Your task to perform on an android device: Go to Yahoo.com Image 0: 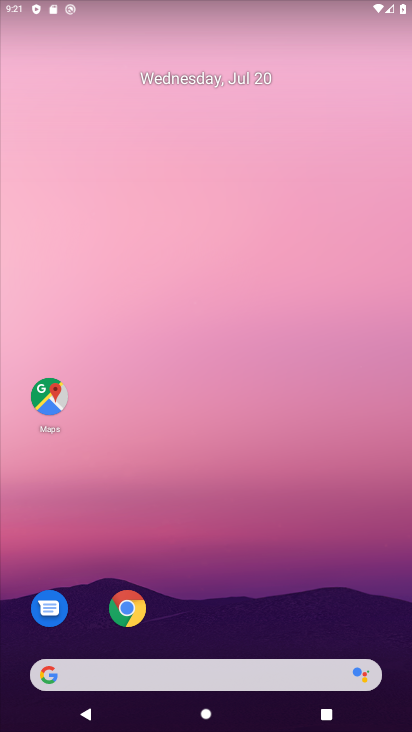
Step 0: drag from (268, 551) to (190, 9)
Your task to perform on an android device: Go to Yahoo.com Image 1: 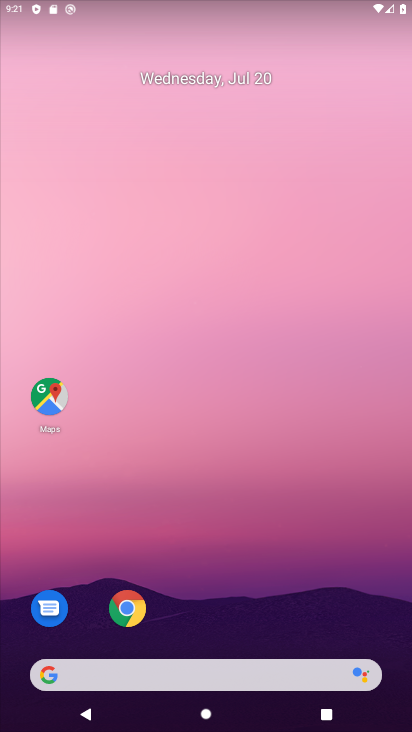
Step 1: drag from (245, 561) to (261, 100)
Your task to perform on an android device: Go to Yahoo.com Image 2: 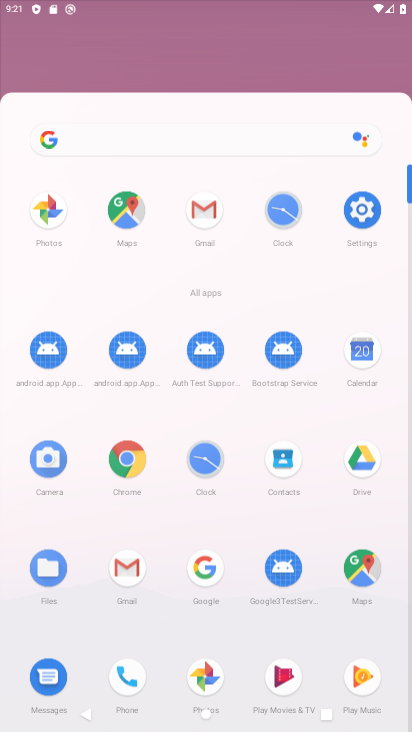
Step 2: drag from (277, 510) to (197, 218)
Your task to perform on an android device: Go to Yahoo.com Image 3: 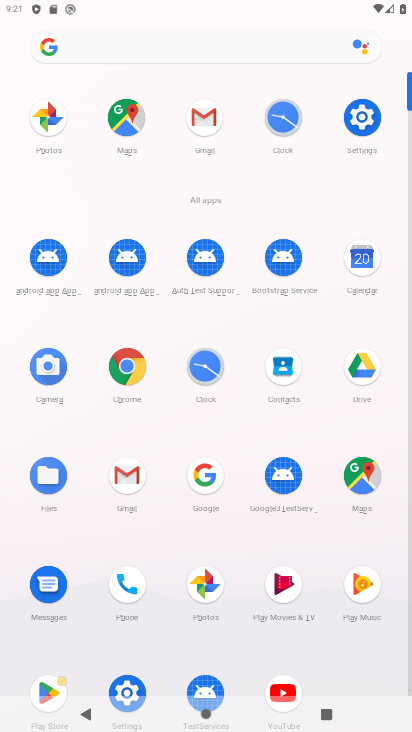
Step 3: click (127, 365)
Your task to perform on an android device: Go to Yahoo.com Image 4: 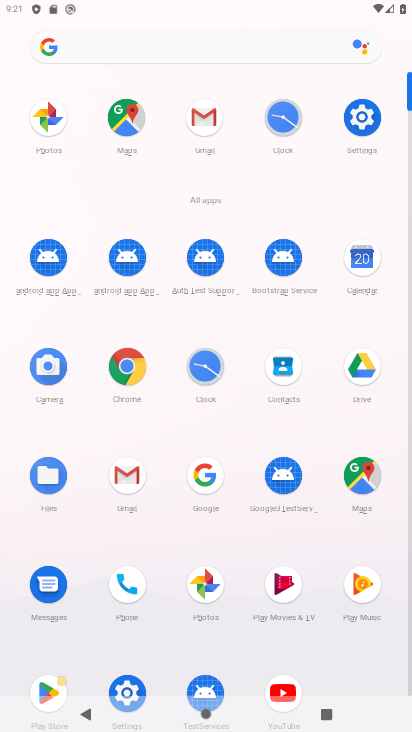
Step 4: click (128, 361)
Your task to perform on an android device: Go to Yahoo.com Image 5: 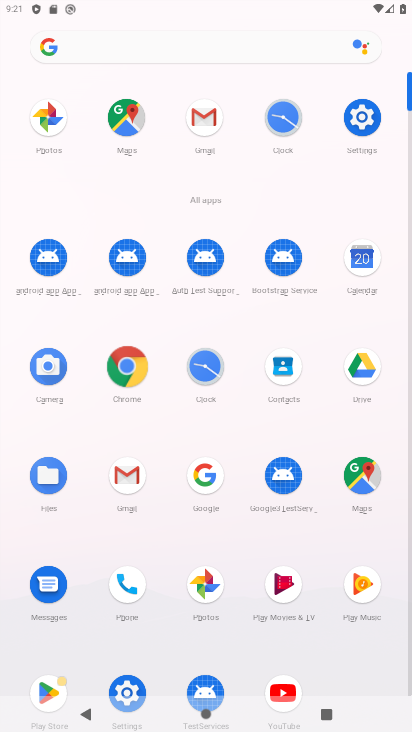
Step 5: click (127, 361)
Your task to perform on an android device: Go to Yahoo.com Image 6: 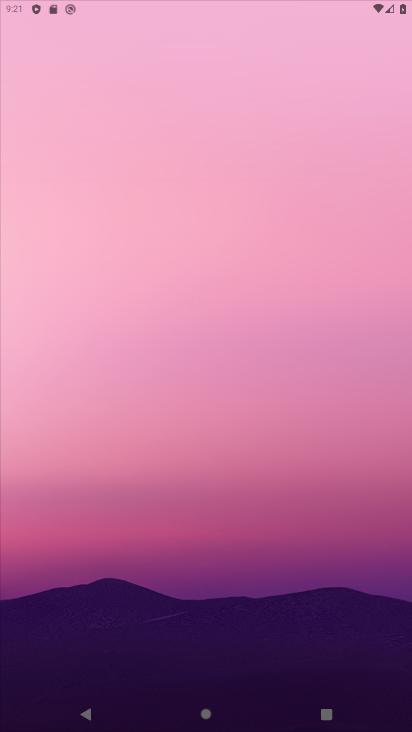
Step 6: click (128, 360)
Your task to perform on an android device: Go to Yahoo.com Image 7: 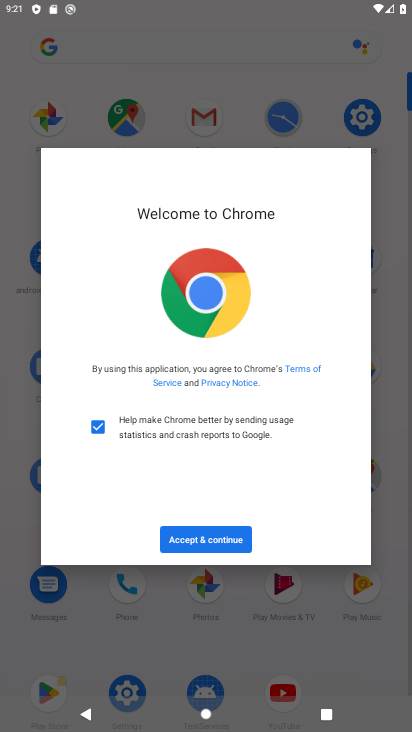
Step 7: click (217, 530)
Your task to perform on an android device: Go to Yahoo.com Image 8: 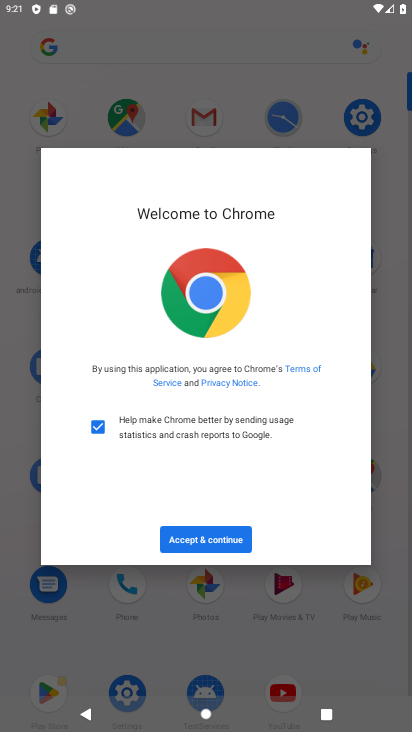
Step 8: click (216, 527)
Your task to perform on an android device: Go to Yahoo.com Image 9: 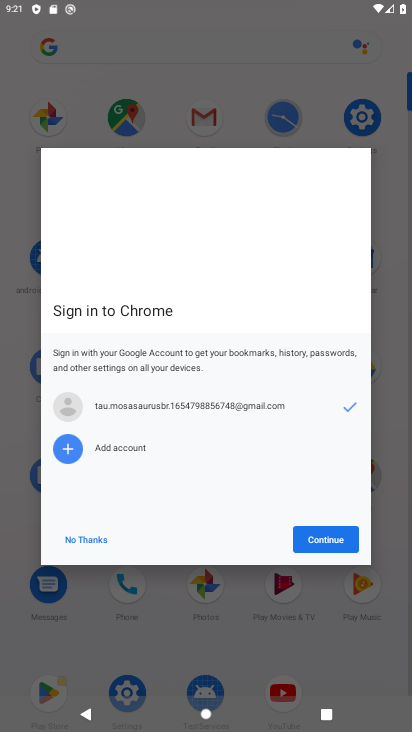
Step 9: click (216, 527)
Your task to perform on an android device: Go to Yahoo.com Image 10: 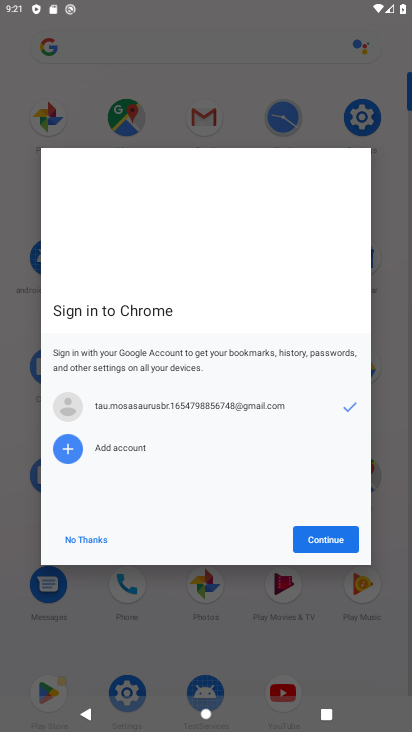
Step 10: click (216, 527)
Your task to perform on an android device: Go to Yahoo.com Image 11: 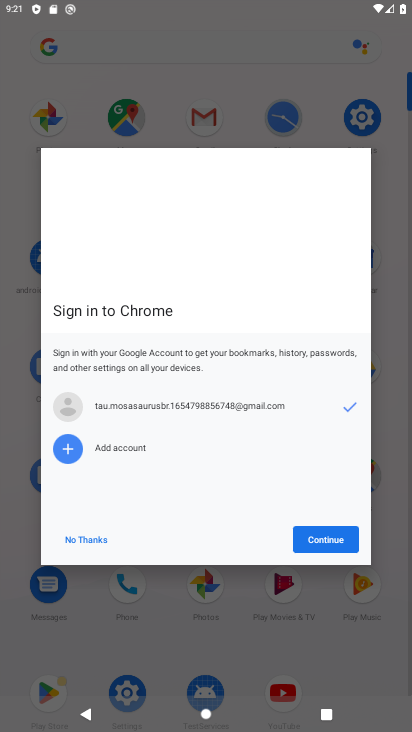
Step 11: click (217, 527)
Your task to perform on an android device: Go to Yahoo.com Image 12: 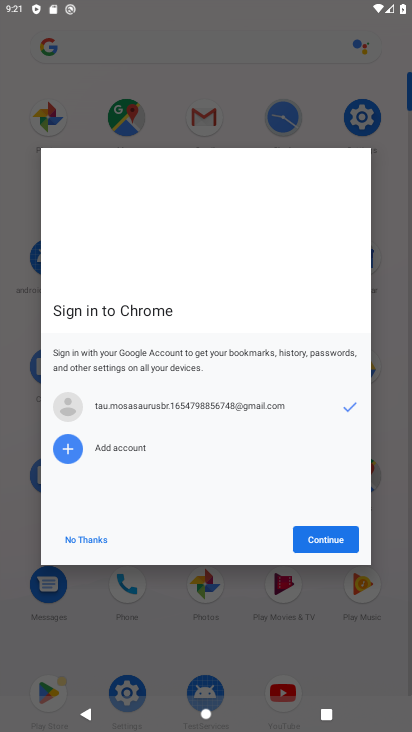
Step 12: click (90, 539)
Your task to perform on an android device: Go to Yahoo.com Image 13: 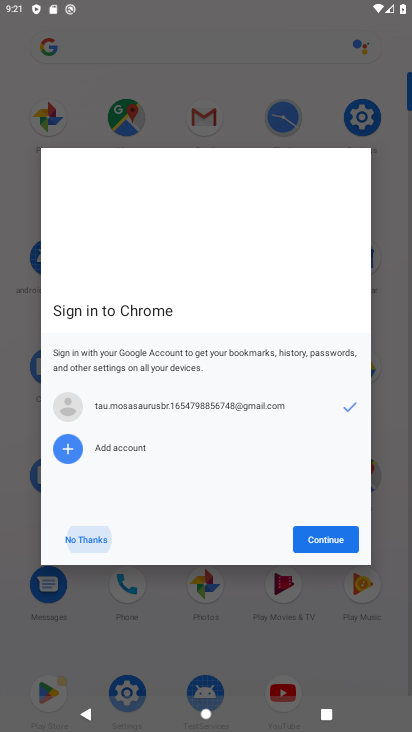
Step 13: click (88, 519)
Your task to perform on an android device: Go to Yahoo.com Image 14: 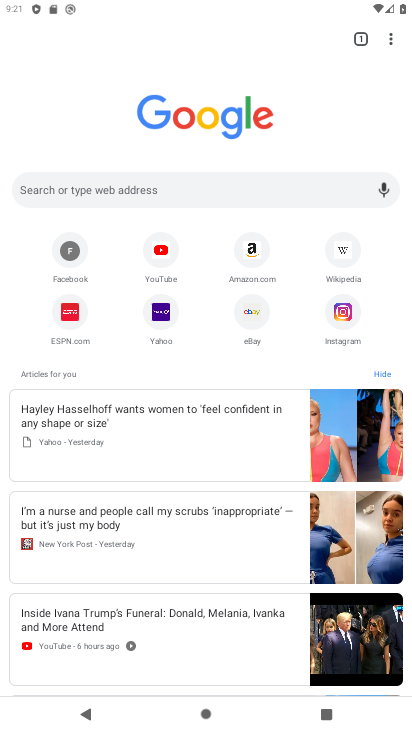
Step 14: click (164, 314)
Your task to perform on an android device: Go to Yahoo.com Image 15: 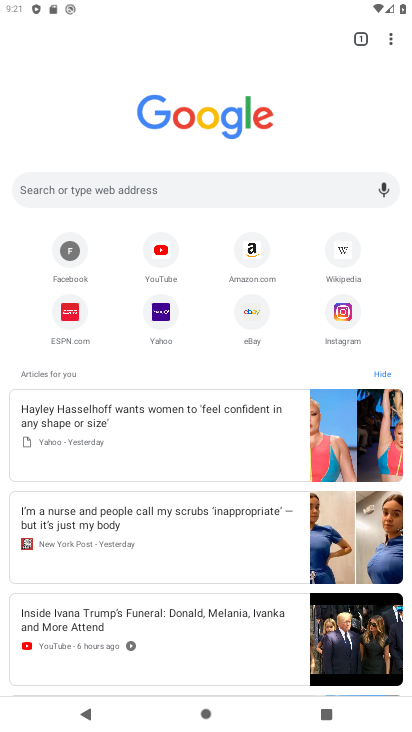
Step 15: click (163, 312)
Your task to perform on an android device: Go to Yahoo.com Image 16: 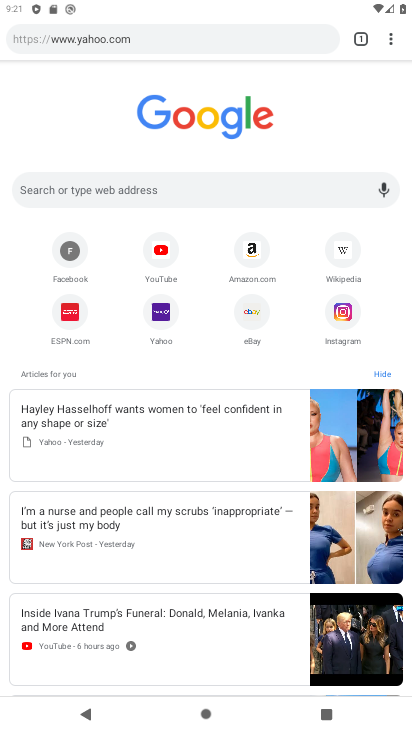
Step 16: click (163, 312)
Your task to perform on an android device: Go to Yahoo.com Image 17: 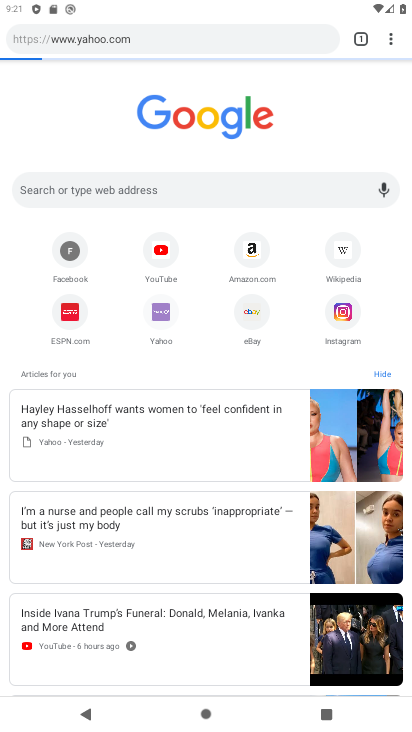
Step 17: click (163, 312)
Your task to perform on an android device: Go to Yahoo.com Image 18: 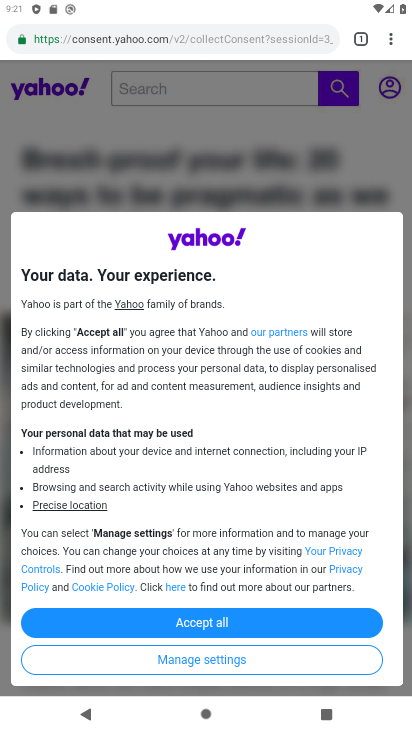
Step 18: task complete